Your task to perform on an android device: toggle show notifications on the lock screen Image 0: 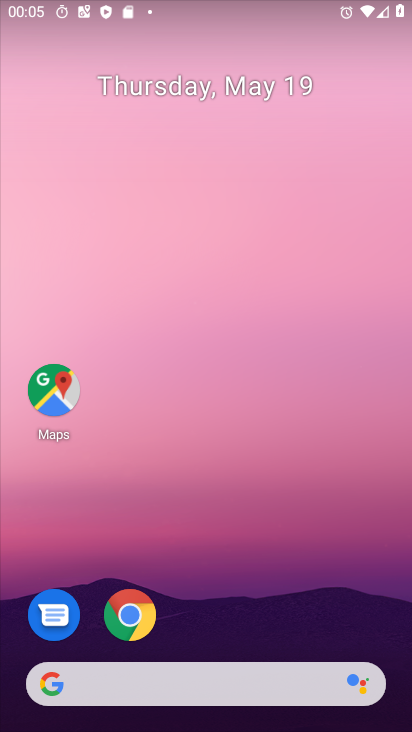
Step 0: drag from (152, 401) to (288, 211)
Your task to perform on an android device: toggle show notifications on the lock screen Image 1: 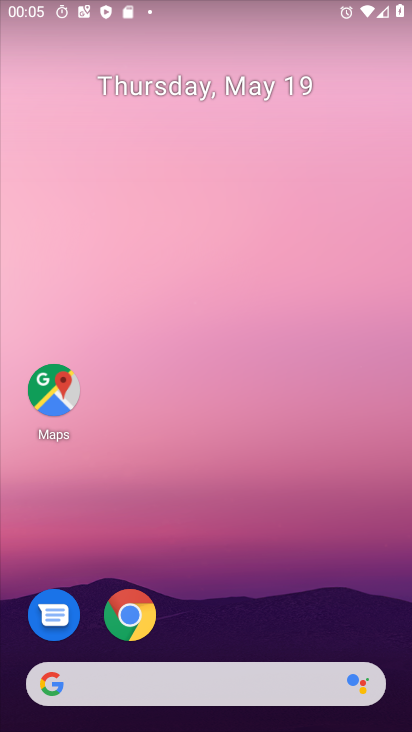
Step 1: drag from (126, 397) to (291, 108)
Your task to perform on an android device: toggle show notifications on the lock screen Image 2: 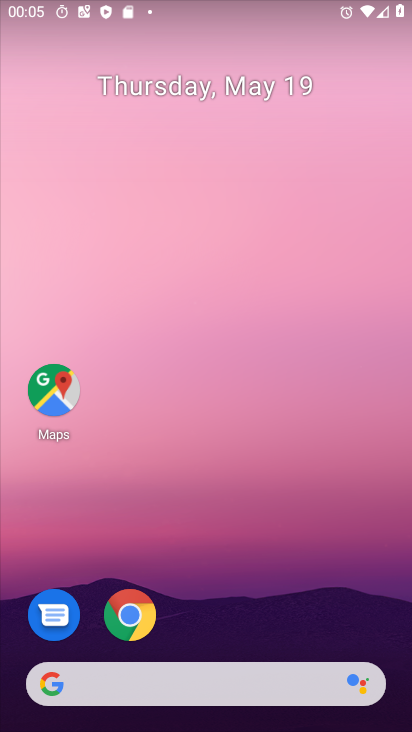
Step 2: drag from (18, 631) to (240, 233)
Your task to perform on an android device: toggle show notifications on the lock screen Image 3: 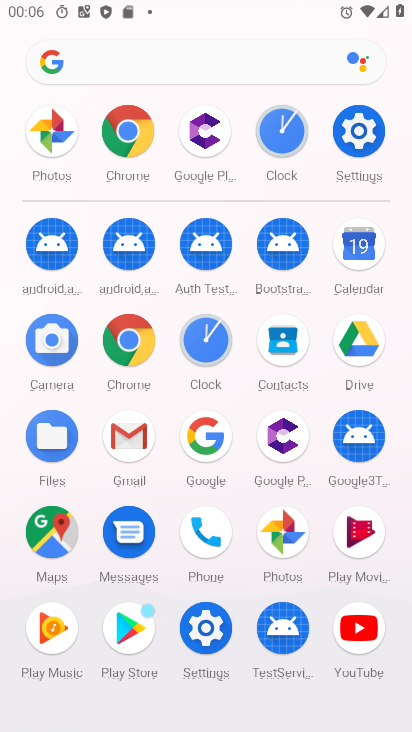
Step 3: click (357, 128)
Your task to perform on an android device: toggle show notifications on the lock screen Image 4: 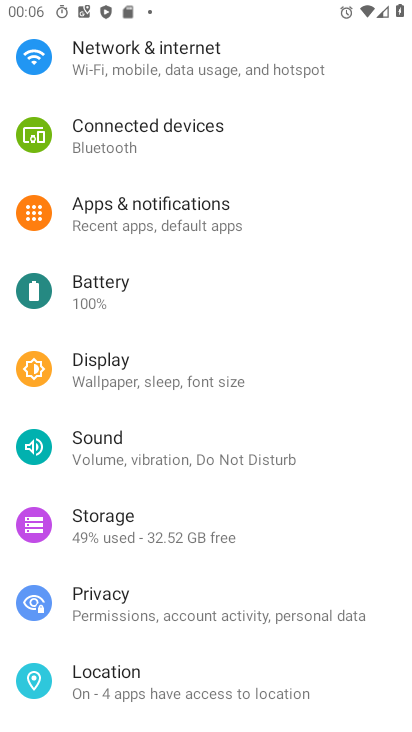
Step 4: drag from (161, 208) to (207, 202)
Your task to perform on an android device: toggle show notifications on the lock screen Image 5: 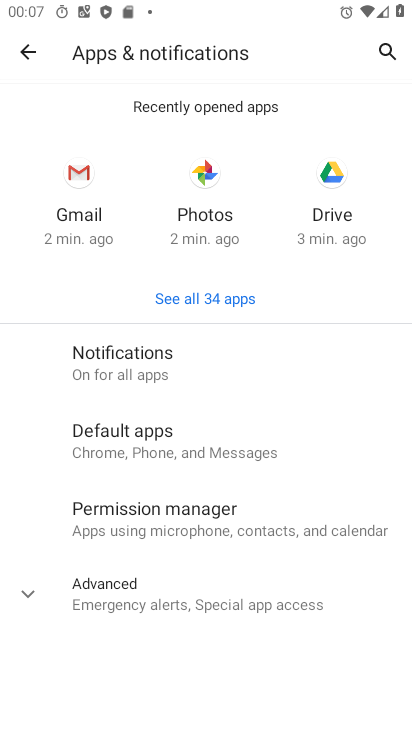
Step 5: click (200, 370)
Your task to perform on an android device: toggle show notifications on the lock screen Image 6: 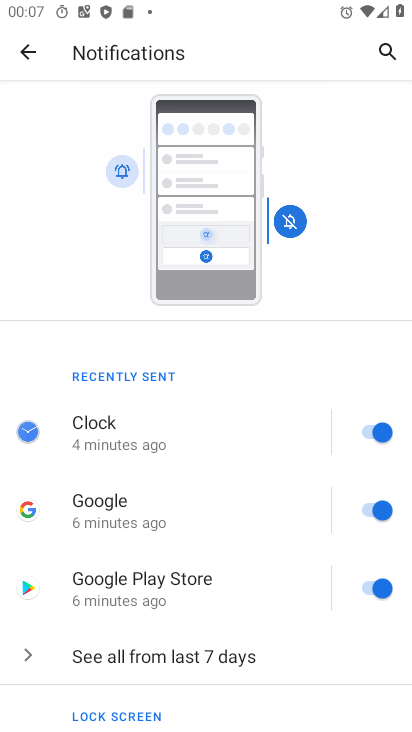
Step 6: drag from (8, 409) to (94, 129)
Your task to perform on an android device: toggle show notifications on the lock screen Image 7: 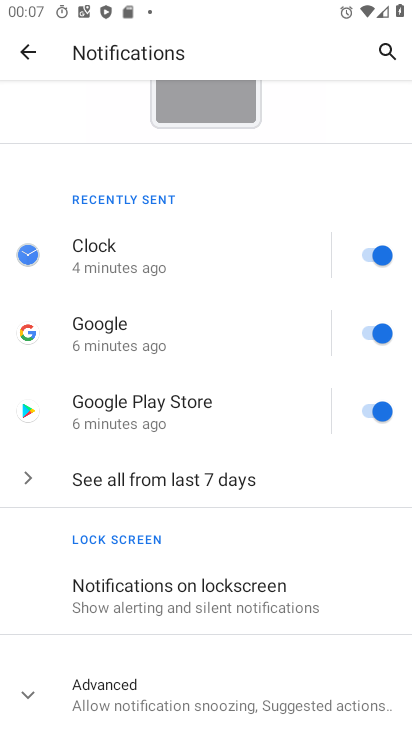
Step 7: click (132, 579)
Your task to perform on an android device: toggle show notifications on the lock screen Image 8: 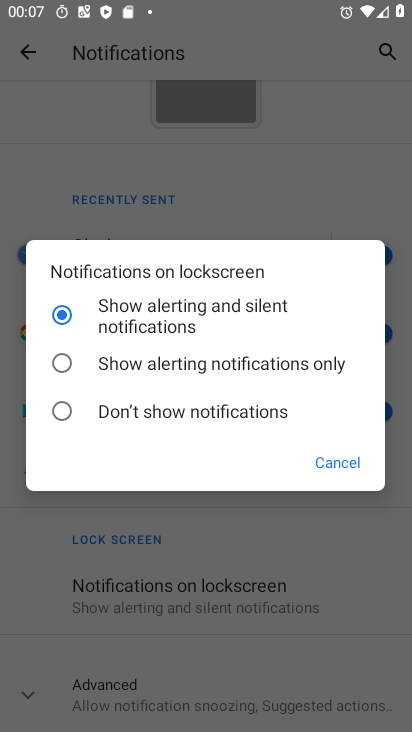
Step 8: click (55, 409)
Your task to perform on an android device: toggle show notifications on the lock screen Image 9: 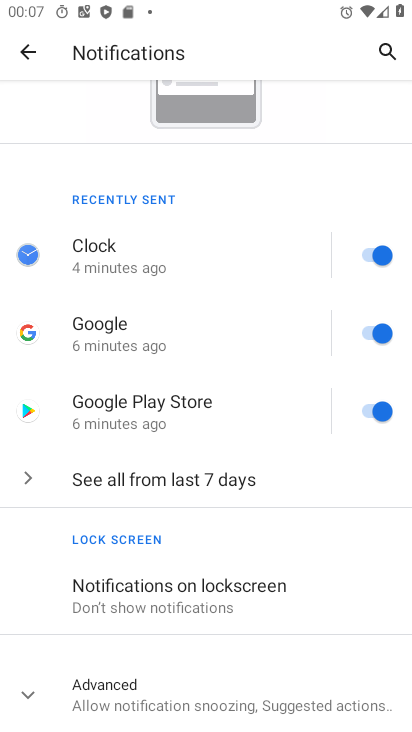
Step 9: task complete